Your task to perform on an android device: open wifi settings Image 0: 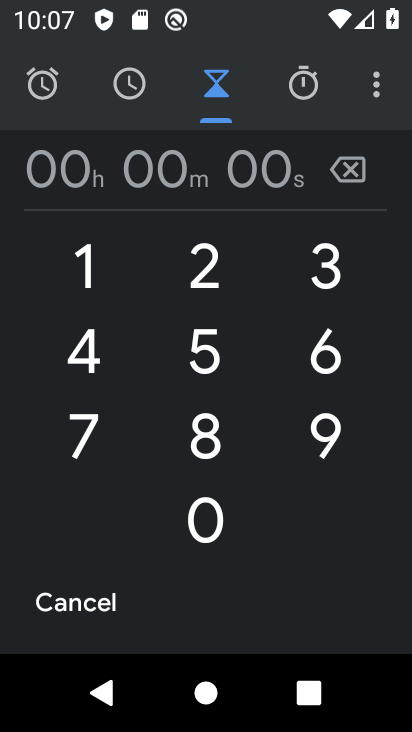
Step 0: press home button
Your task to perform on an android device: open wifi settings Image 1: 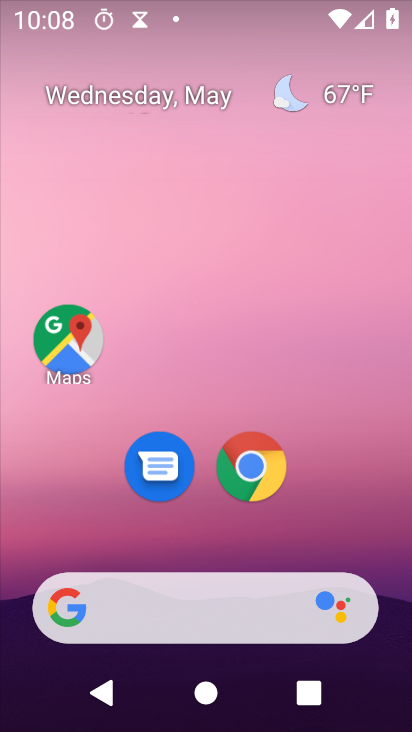
Step 1: drag from (309, 515) to (278, 35)
Your task to perform on an android device: open wifi settings Image 2: 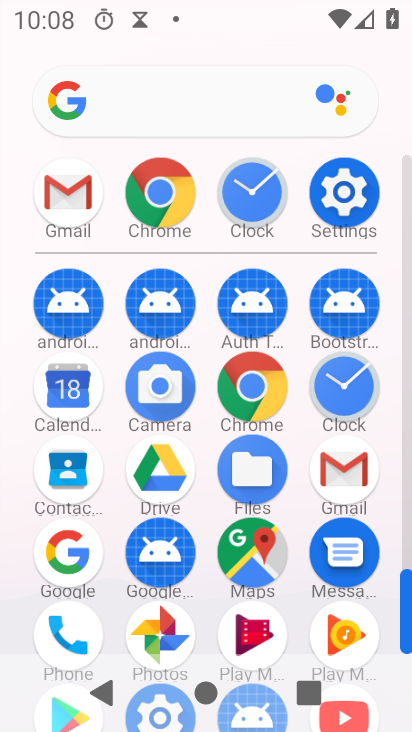
Step 2: click (327, 190)
Your task to perform on an android device: open wifi settings Image 3: 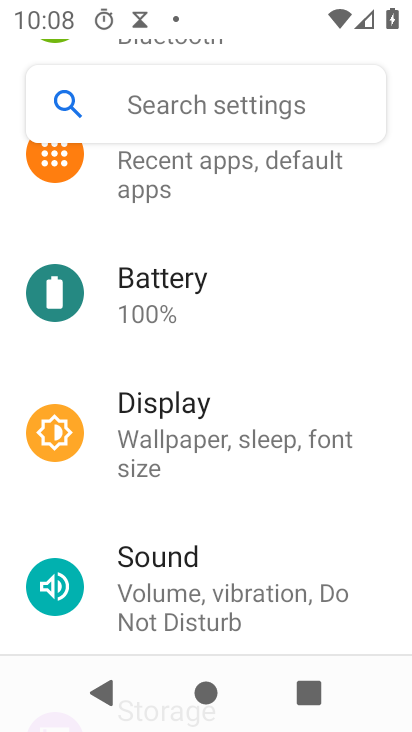
Step 3: drag from (280, 210) to (255, 538)
Your task to perform on an android device: open wifi settings Image 4: 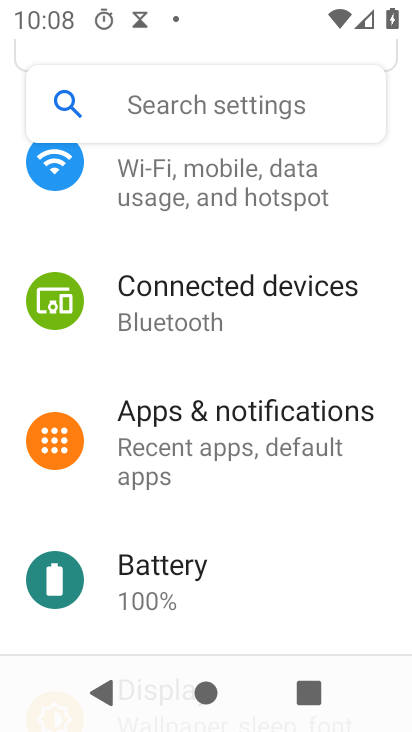
Step 4: click (194, 207)
Your task to perform on an android device: open wifi settings Image 5: 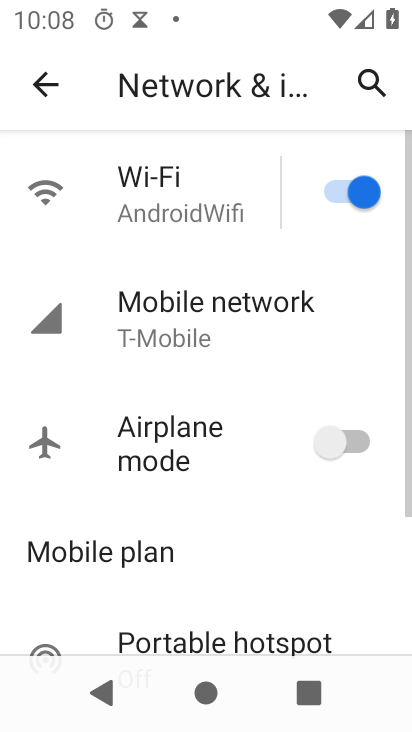
Step 5: click (195, 206)
Your task to perform on an android device: open wifi settings Image 6: 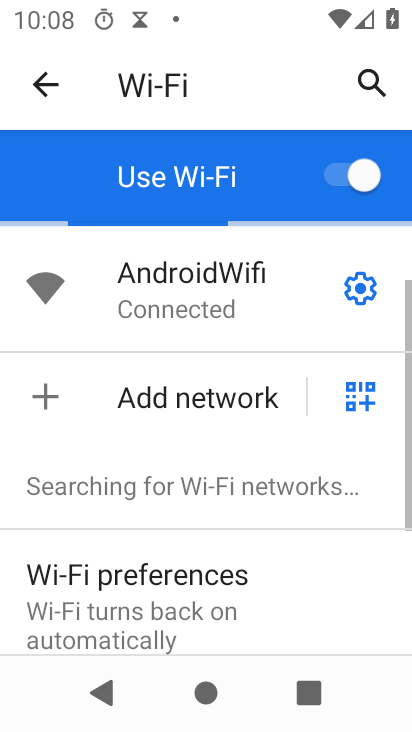
Step 6: task complete